Your task to perform on an android device: Is it going to rain tomorrow? Image 0: 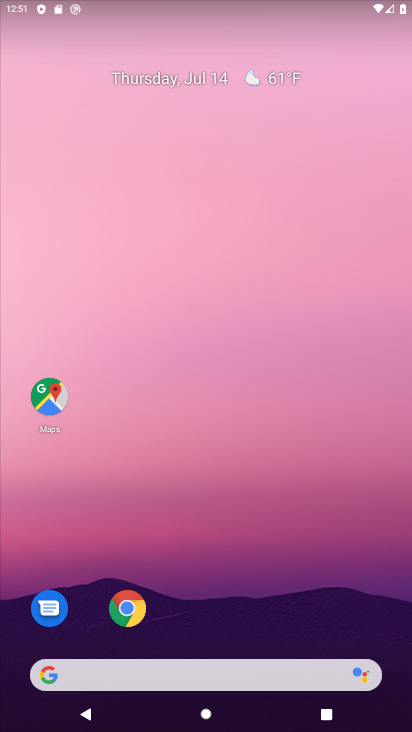
Step 0: click (220, 671)
Your task to perform on an android device: Is it going to rain tomorrow? Image 1: 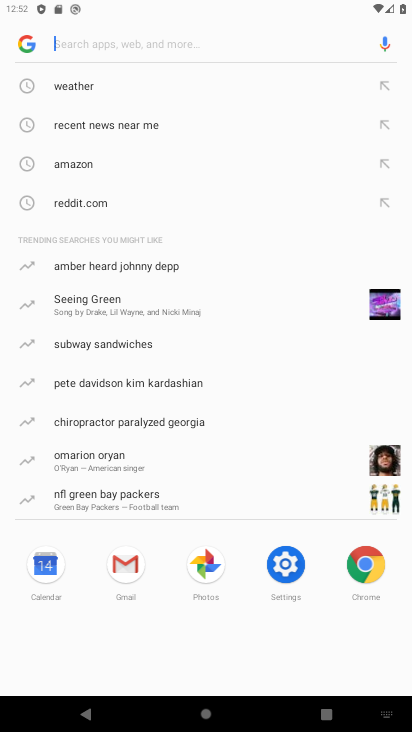
Step 1: click (90, 91)
Your task to perform on an android device: Is it going to rain tomorrow? Image 2: 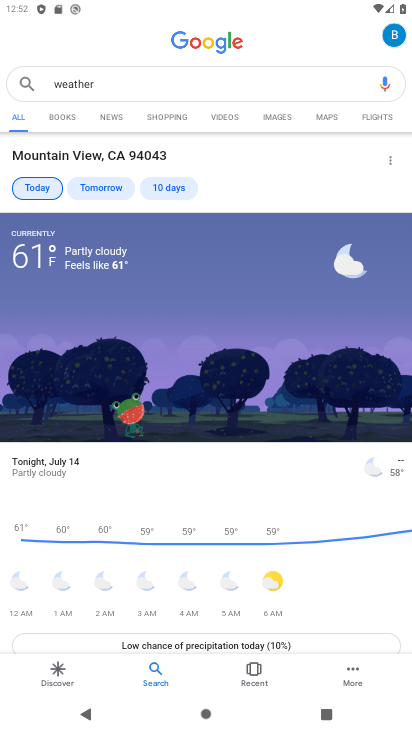
Step 2: click (117, 187)
Your task to perform on an android device: Is it going to rain tomorrow? Image 3: 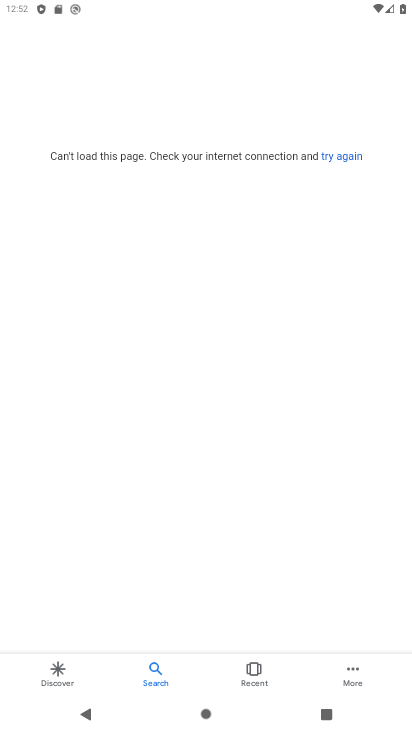
Step 3: task complete